Your task to perform on an android device: find snoozed emails in the gmail app Image 0: 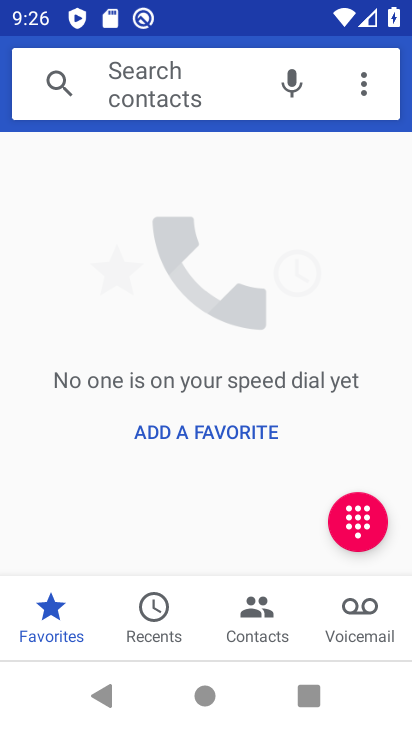
Step 0: press home button
Your task to perform on an android device: find snoozed emails in the gmail app Image 1: 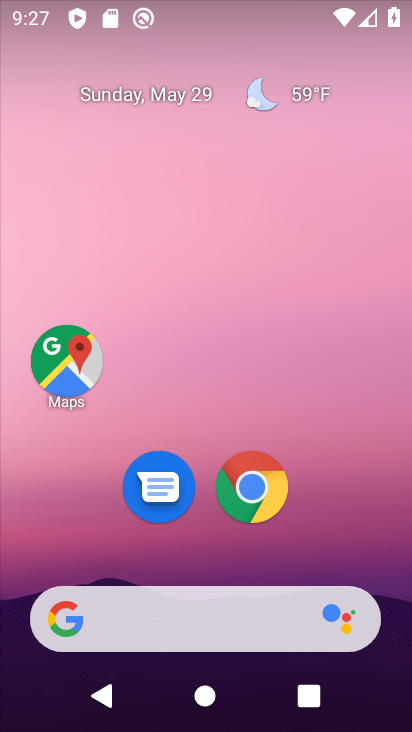
Step 1: drag from (398, 657) to (345, 132)
Your task to perform on an android device: find snoozed emails in the gmail app Image 2: 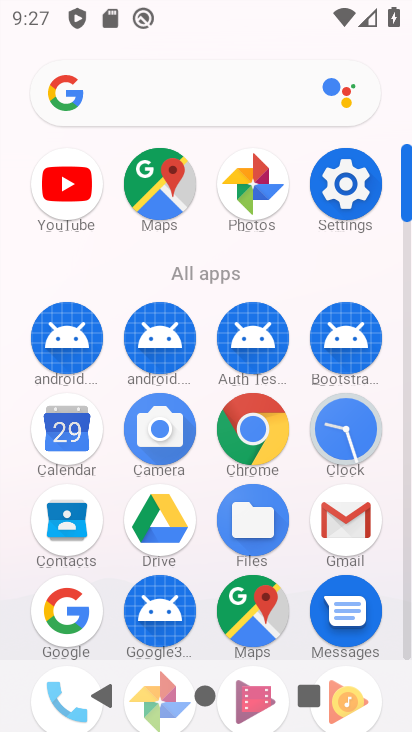
Step 2: click (364, 151)
Your task to perform on an android device: find snoozed emails in the gmail app Image 3: 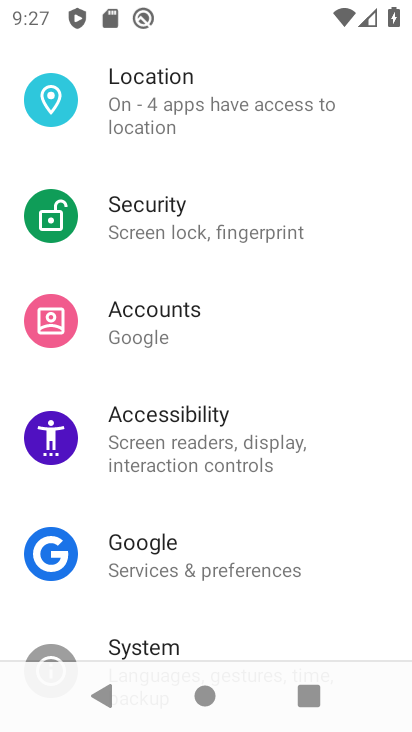
Step 3: drag from (331, 627) to (313, 267)
Your task to perform on an android device: find snoozed emails in the gmail app Image 4: 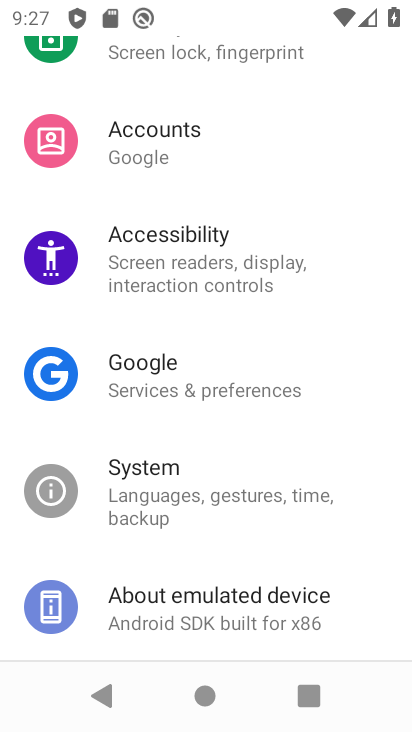
Step 4: drag from (255, 149) to (315, 614)
Your task to perform on an android device: find snoozed emails in the gmail app Image 5: 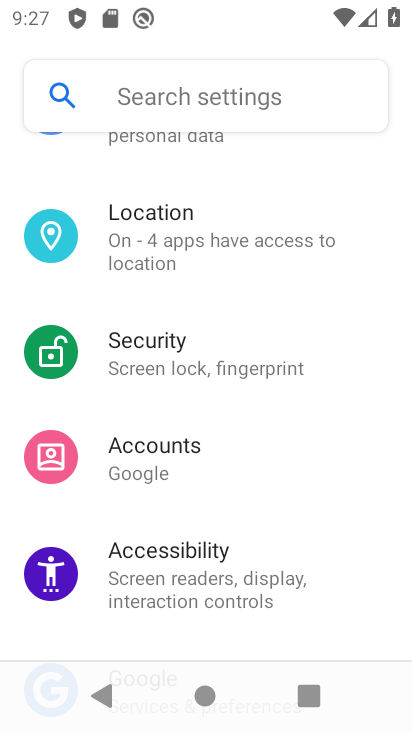
Step 5: drag from (251, 165) to (310, 573)
Your task to perform on an android device: find snoozed emails in the gmail app Image 6: 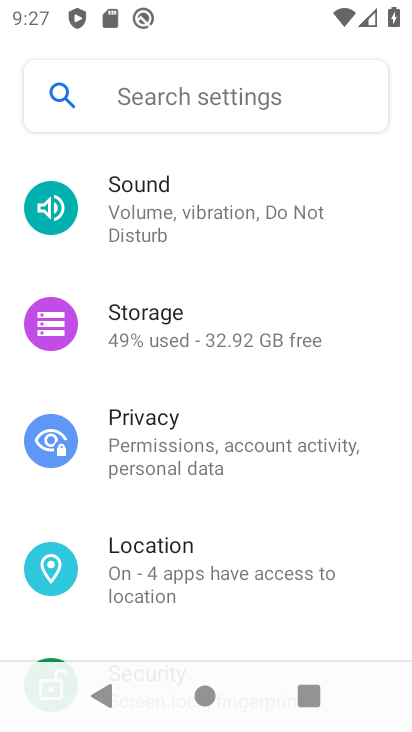
Step 6: drag from (230, 173) to (300, 542)
Your task to perform on an android device: find snoozed emails in the gmail app Image 7: 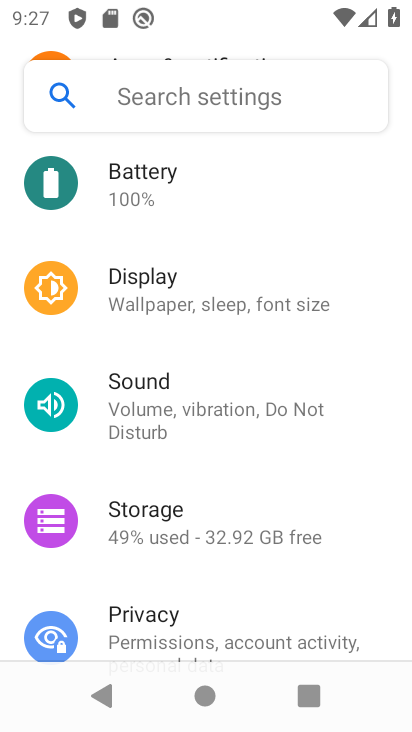
Step 7: press home button
Your task to perform on an android device: find snoozed emails in the gmail app Image 8: 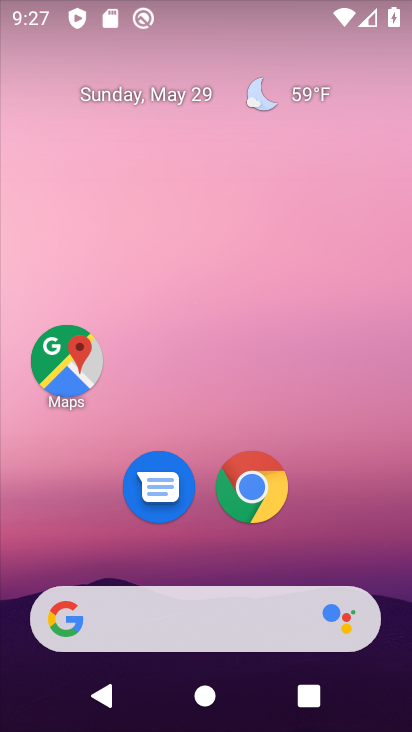
Step 8: drag from (401, 701) to (343, 163)
Your task to perform on an android device: find snoozed emails in the gmail app Image 9: 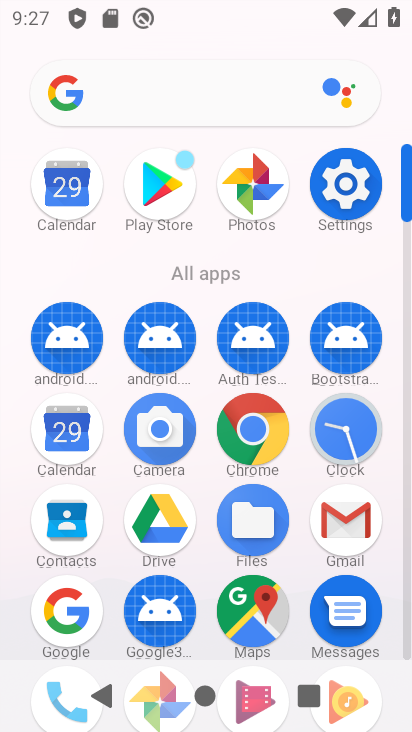
Step 9: click (343, 524)
Your task to perform on an android device: find snoozed emails in the gmail app Image 10: 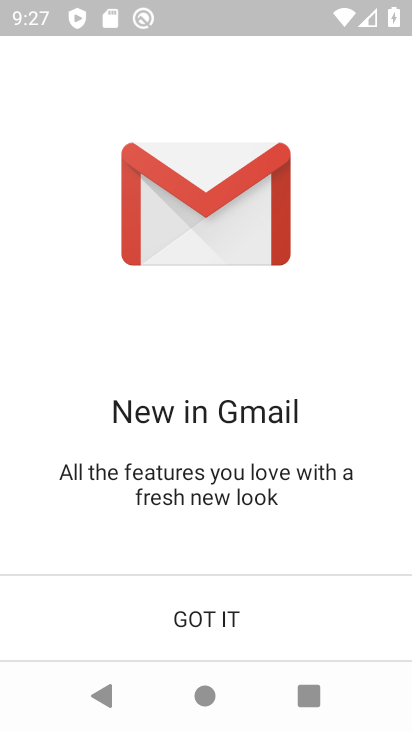
Step 10: click (217, 609)
Your task to perform on an android device: find snoozed emails in the gmail app Image 11: 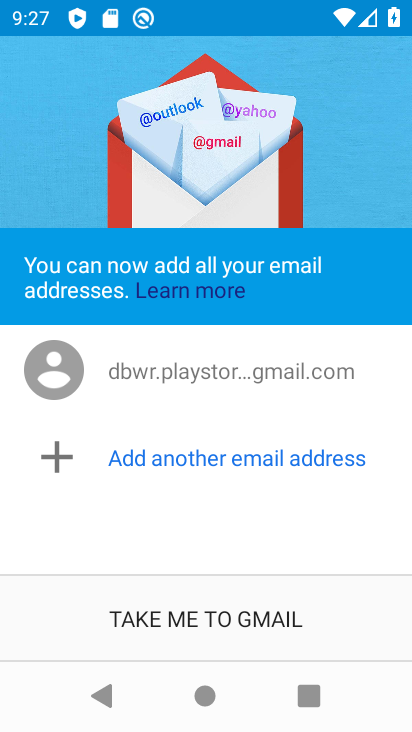
Step 11: click (222, 628)
Your task to perform on an android device: find snoozed emails in the gmail app Image 12: 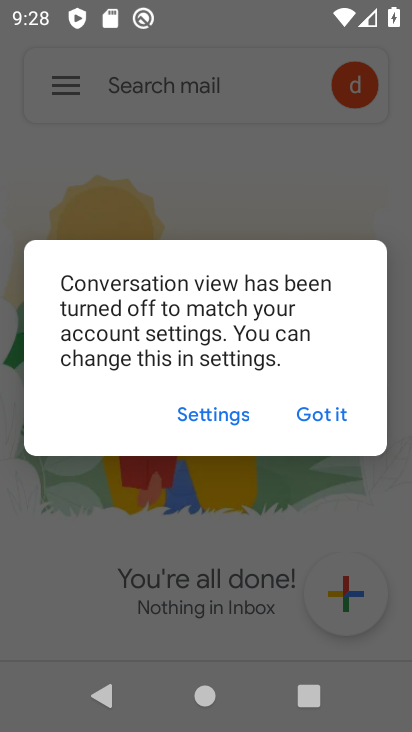
Step 12: click (330, 421)
Your task to perform on an android device: find snoozed emails in the gmail app Image 13: 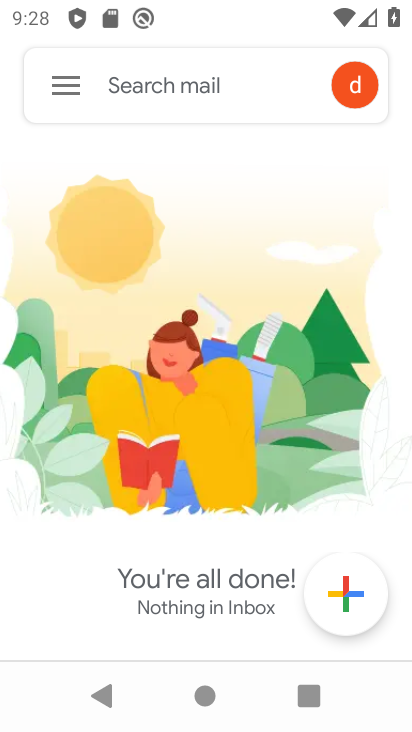
Step 13: click (66, 72)
Your task to perform on an android device: find snoozed emails in the gmail app Image 14: 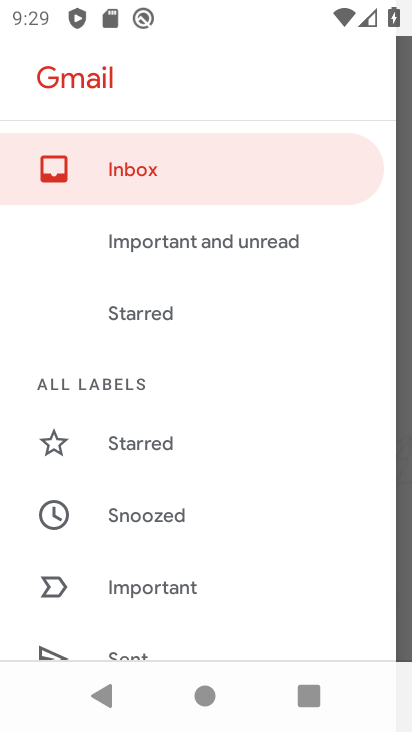
Step 14: click (160, 518)
Your task to perform on an android device: find snoozed emails in the gmail app Image 15: 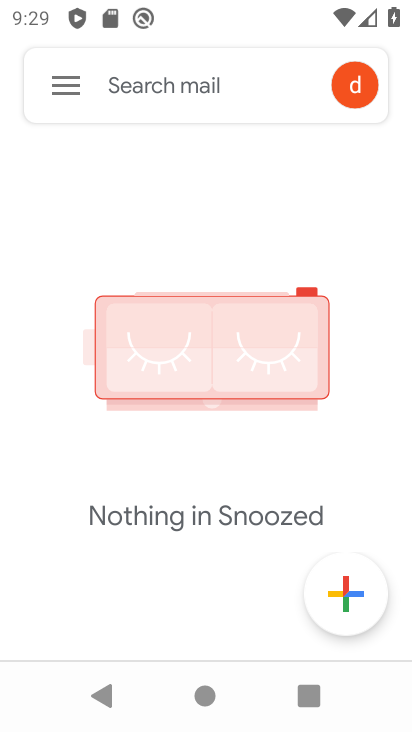
Step 15: task complete